Your task to perform on an android device: Clear the shopping cart on walmart. Add energizer triple a to the cart on walmart, then select checkout. Image 0: 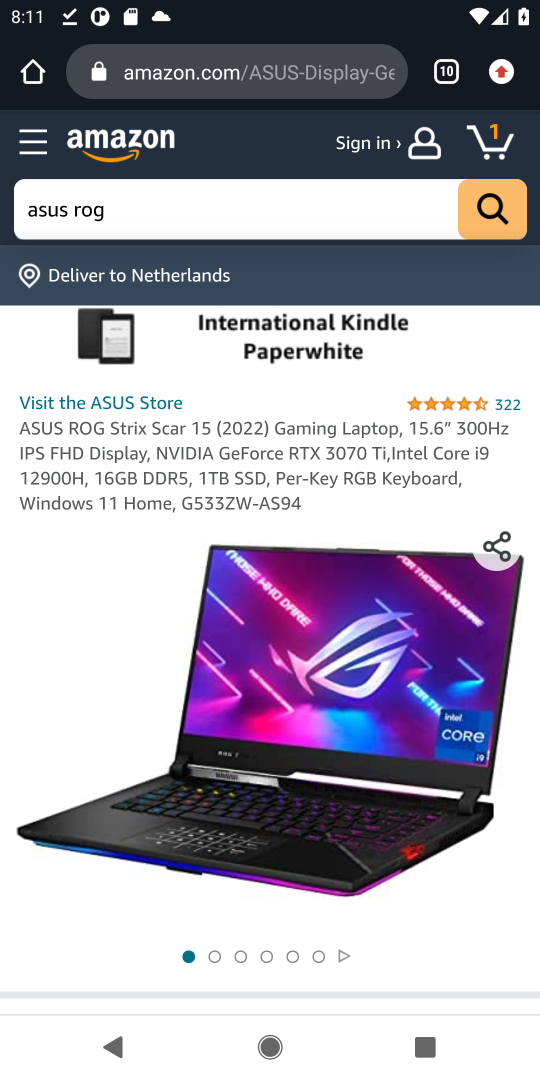
Step 0: click (260, 972)
Your task to perform on an android device: Clear the shopping cart on walmart. Add energizer triple a to the cart on walmart, then select checkout. Image 1: 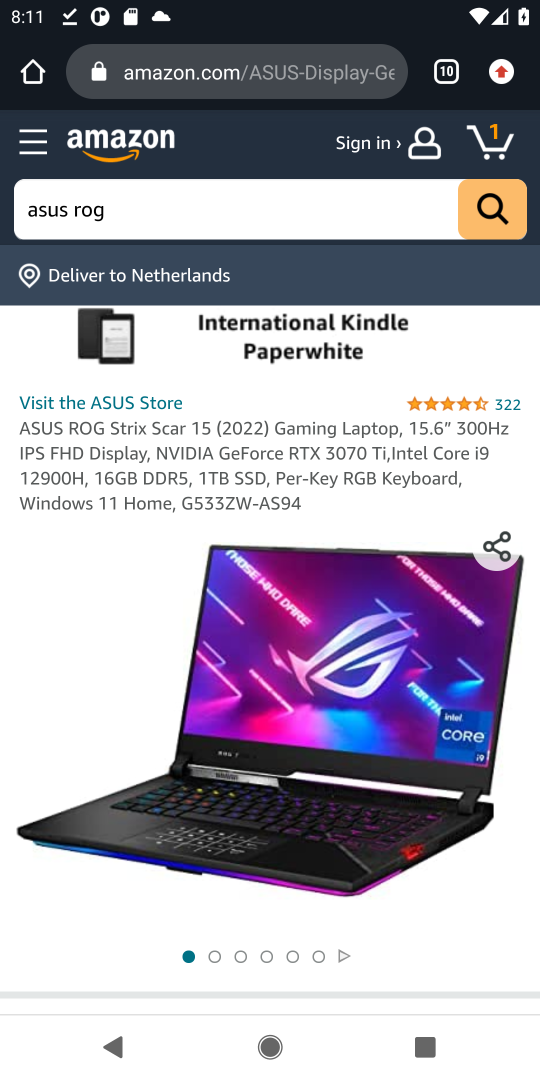
Step 1: press home button
Your task to perform on an android device: Clear the shopping cart on walmart. Add energizer triple a to the cart on walmart, then select checkout. Image 2: 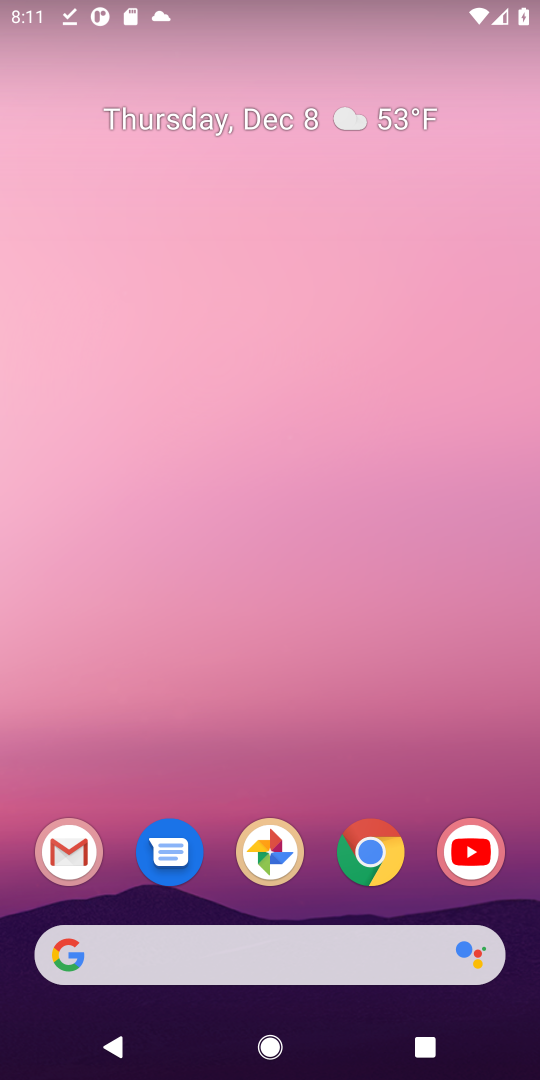
Step 2: click (337, 973)
Your task to perform on an android device: Clear the shopping cart on walmart. Add energizer triple a to the cart on walmart, then select checkout. Image 3: 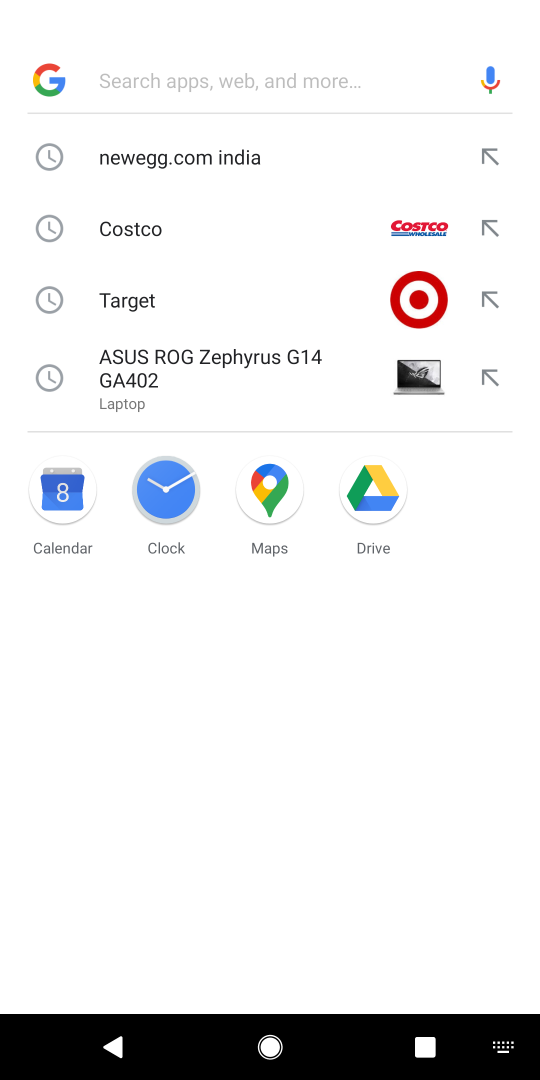
Step 3: type "walmart"
Your task to perform on an android device: Clear the shopping cart on walmart. Add energizer triple a to the cart on walmart, then select checkout. Image 4: 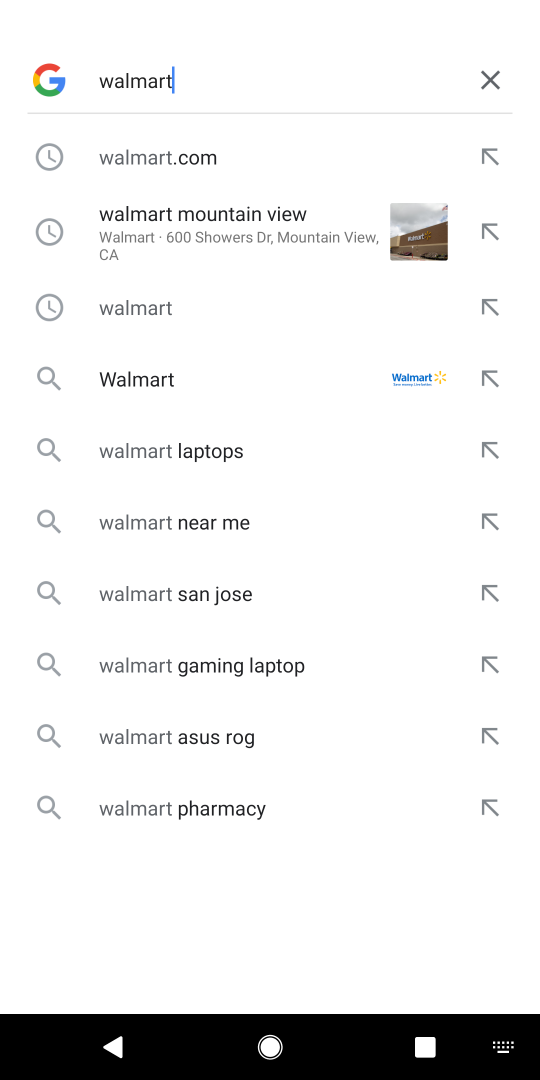
Step 4: click (144, 177)
Your task to perform on an android device: Clear the shopping cart on walmart. Add energizer triple a to the cart on walmart, then select checkout. Image 5: 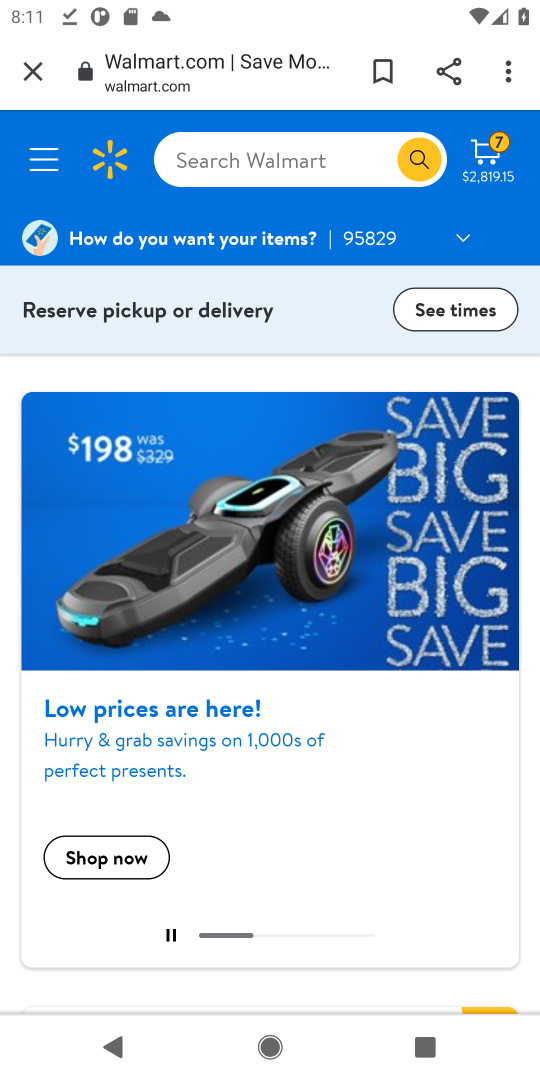
Step 5: click (271, 161)
Your task to perform on an android device: Clear the shopping cart on walmart. Add energizer triple a to the cart on walmart, then select checkout. Image 6: 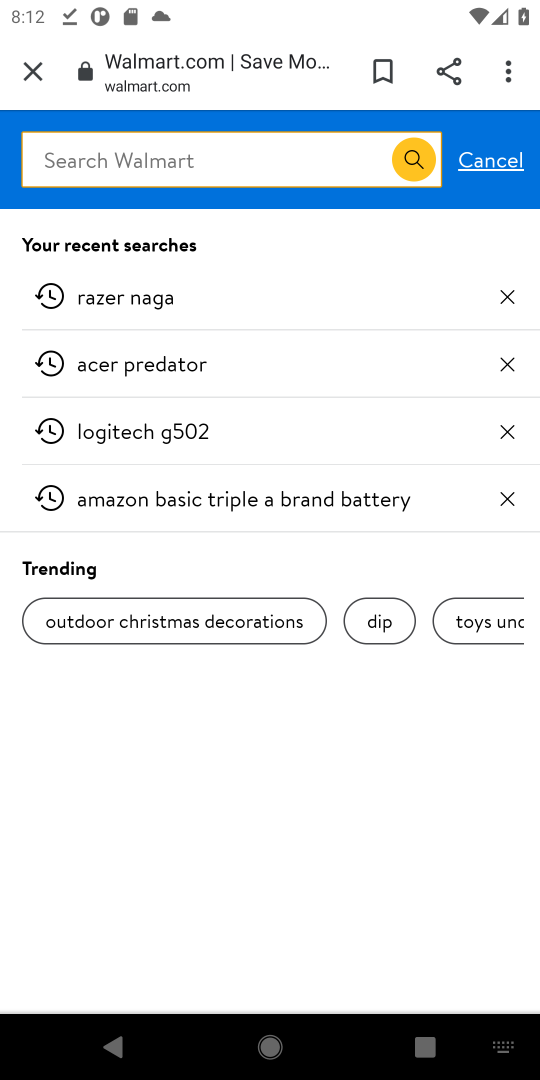
Step 6: type "energizer"
Your task to perform on an android device: Clear the shopping cart on walmart. Add energizer triple a to the cart on walmart, then select checkout. Image 7: 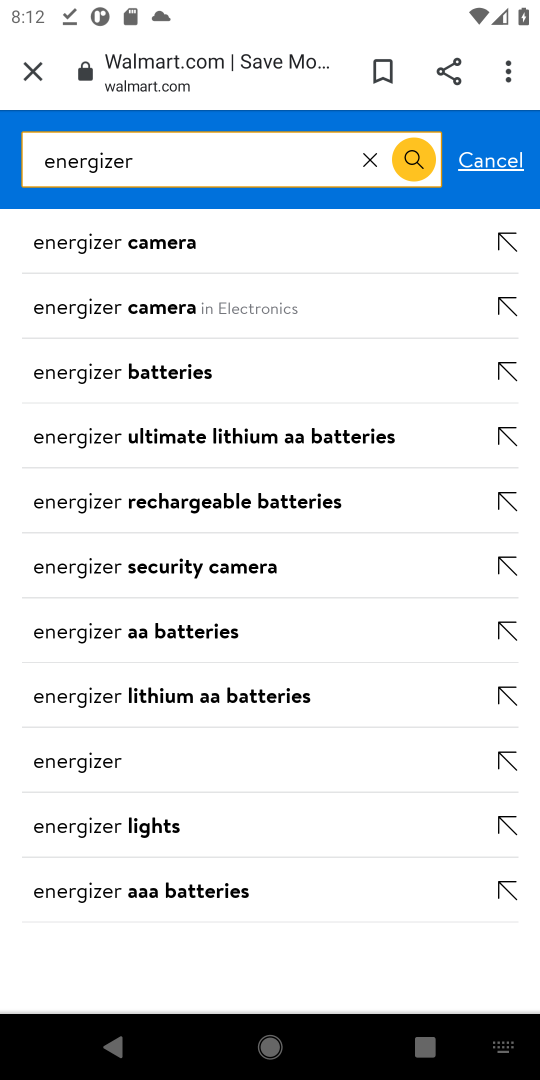
Step 7: type " reiple a"
Your task to perform on an android device: Clear the shopping cart on walmart. Add energizer triple a to the cart on walmart, then select checkout. Image 8: 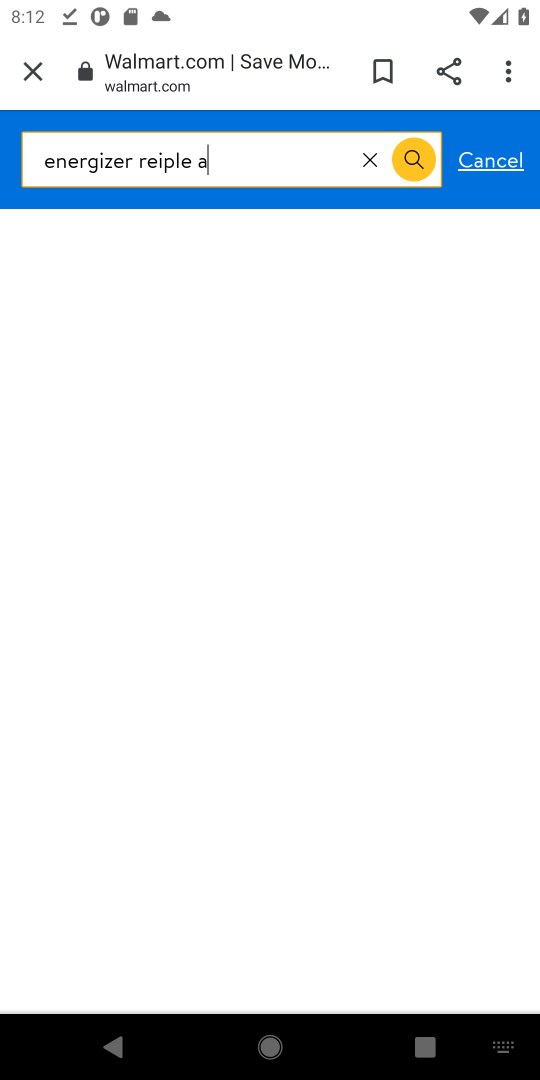
Step 8: click (409, 170)
Your task to perform on an android device: Clear the shopping cart on walmart. Add energizer triple a to the cart on walmart, then select checkout. Image 9: 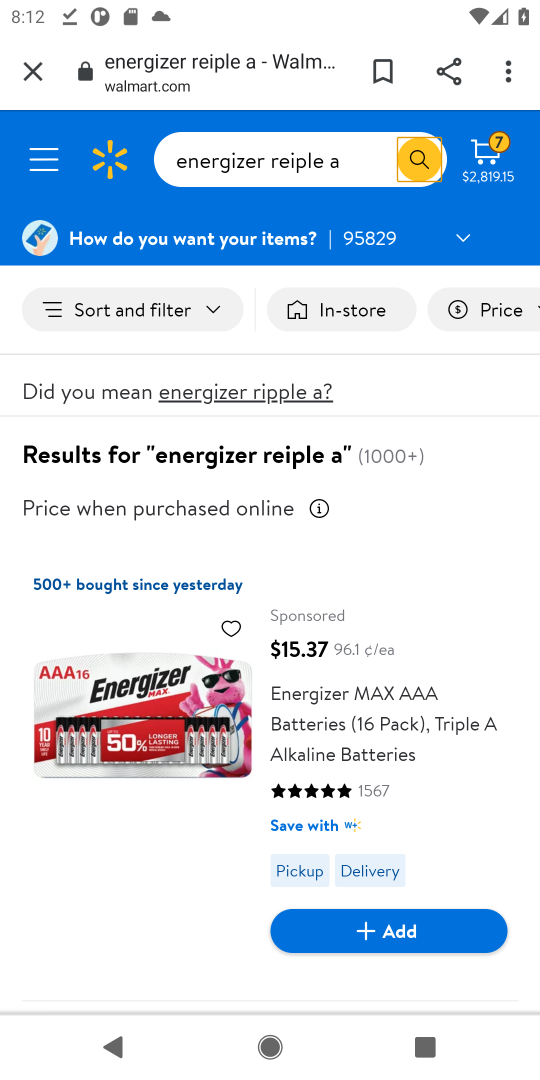
Step 9: click (349, 939)
Your task to perform on an android device: Clear the shopping cart on walmart. Add energizer triple a to the cart on walmart, then select checkout. Image 10: 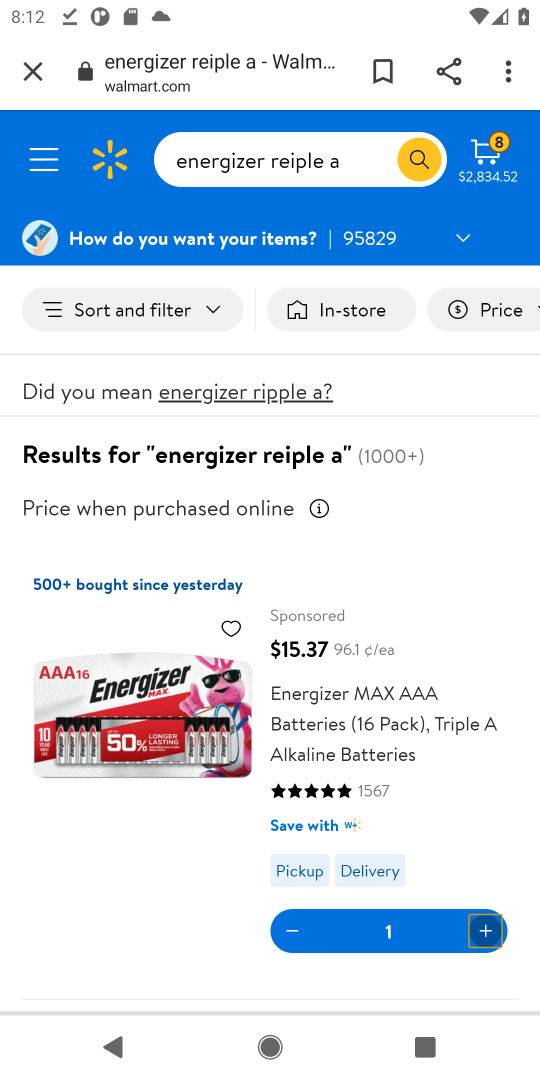
Step 10: task complete